Your task to perform on an android device: Is it going to rain tomorrow? Image 0: 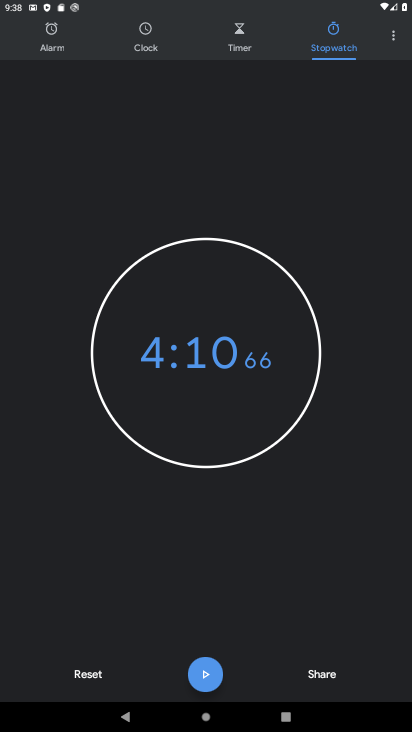
Step 0: press back button
Your task to perform on an android device: Is it going to rain tomorrow? Image 1: 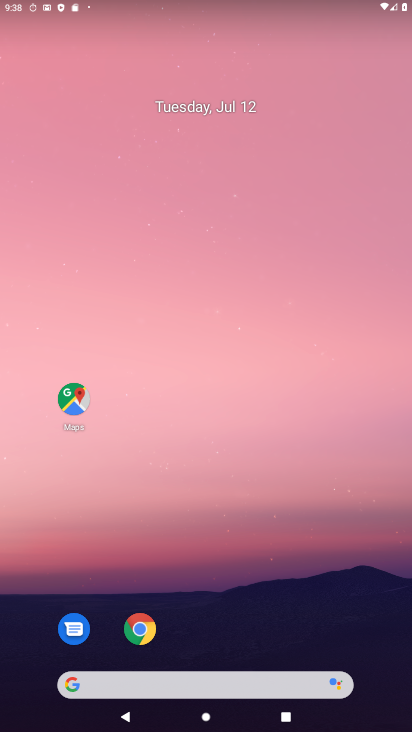
Step 1: drag from (254, 700) to (187, 174)
Your task to perform on an android device: Is it going to rain tomorrow? Image 2: 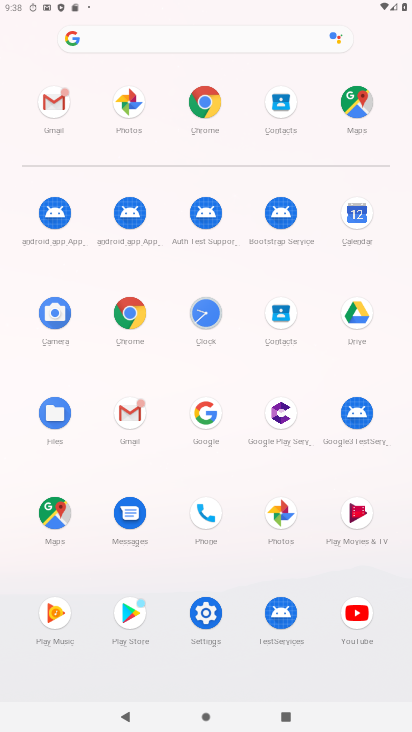
Step 2: click (200, 98)
Your task to perform on an android device: Is it going to rain tomorrow? Image 3: 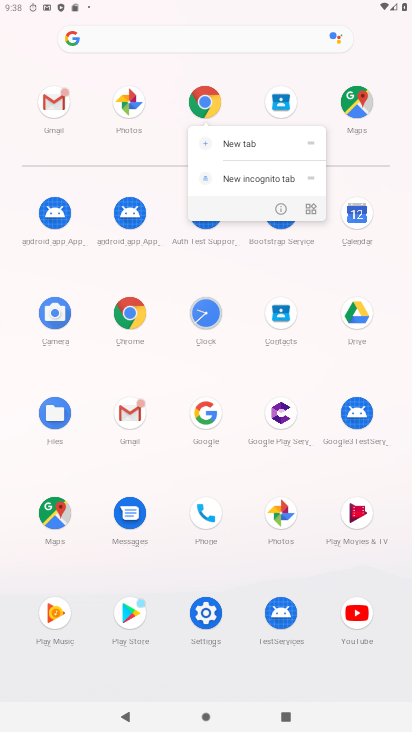
Step 3: click (208, 99)
Your task to perform on an android device: Is it going to rain tomorrow? Image 4: 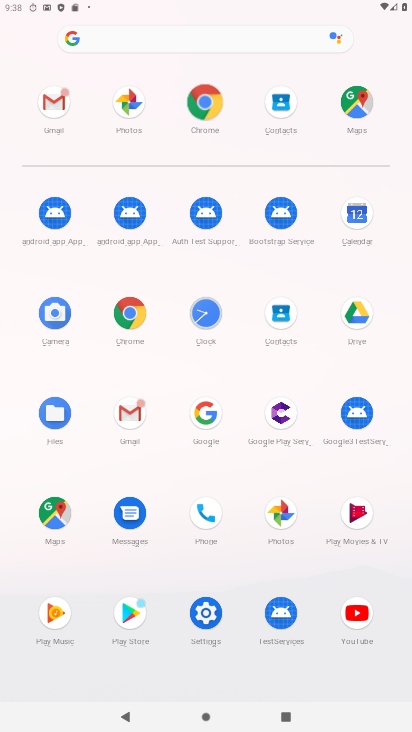
Step 4: click (211, 98)
Your task to perform on an android device: Is it going to rain tomorrow? Image 5: 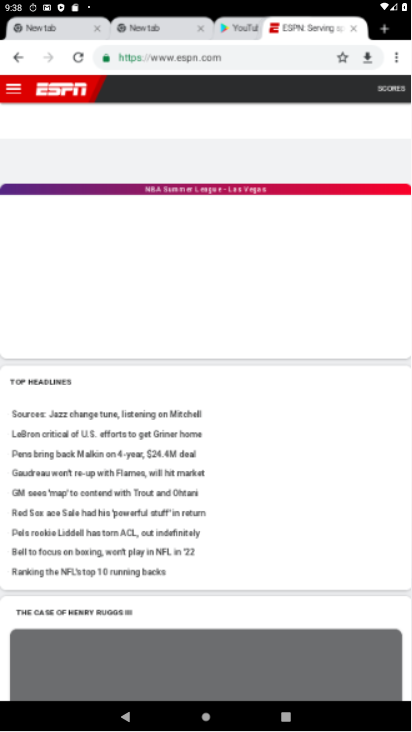
Step 5: click (211, 98)
Your task to perform on an android device: Is it going to rain tomorrow? Image 6: 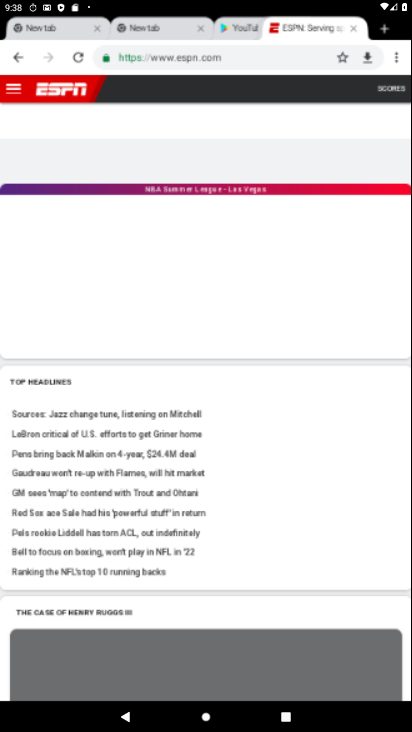
Step 6: click (211, 98)
Your task to perform on an android device: Is it going to rain tomorrow? Image 7: 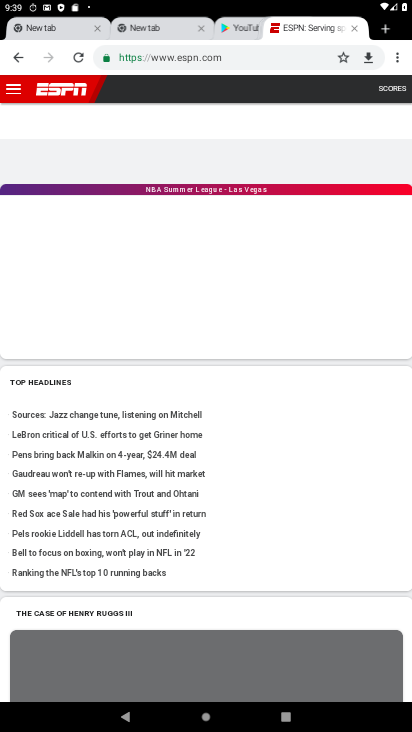
Step 7: click (356, 30)
Your task to perform on an android device: Is it going to rain tomorrow? Image 8: 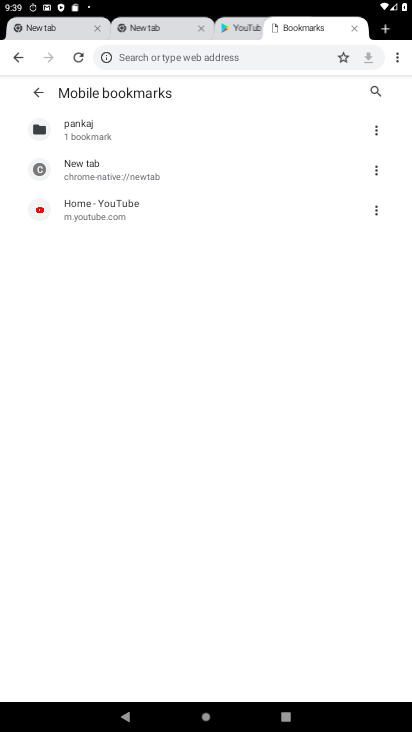
Step 8: click (353, 27)
Your task to perform on an android device: Is it going to rain tomorrow? Image 9: 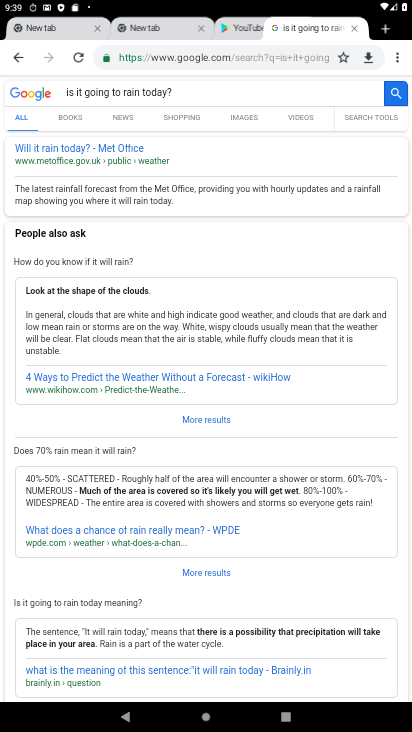
Step 9: click (351, 32)
Your task to perform on an android device: Is it going to rain tomorrow? Image 10: 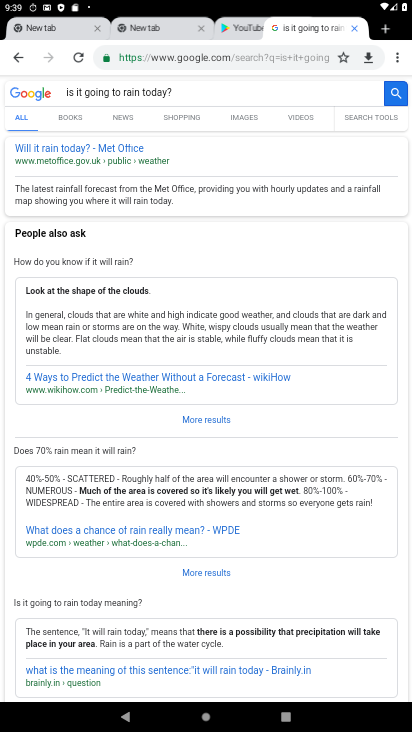
Step 10: click (351, 32)
Your task to perform on an android device: Is it going to rain tomorrow? Image 11: 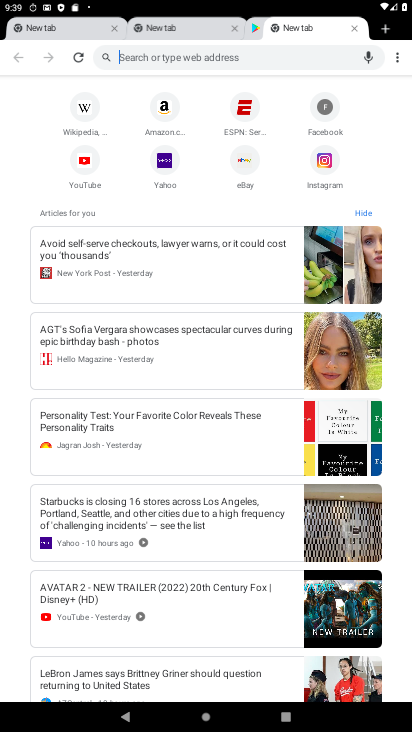
Step 11: type "is it going to rain tomorrow"
Your task to perform on an android device: Is it going to rain tomorrow? Image 12: 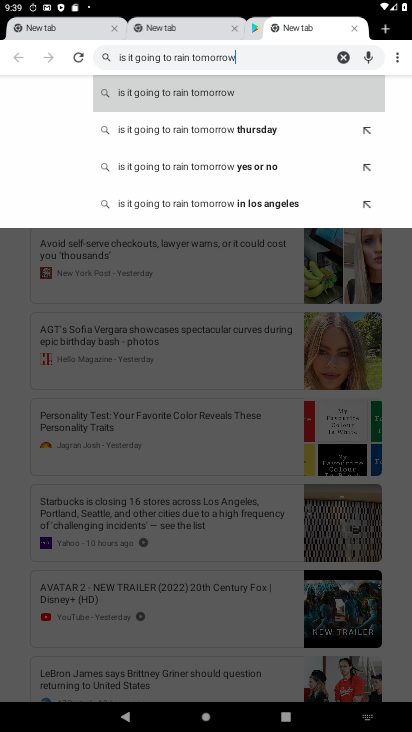
Step 12: click (207, 82)
Your task to perform on an android device: Is it going to rain tomorrow? Image 13: 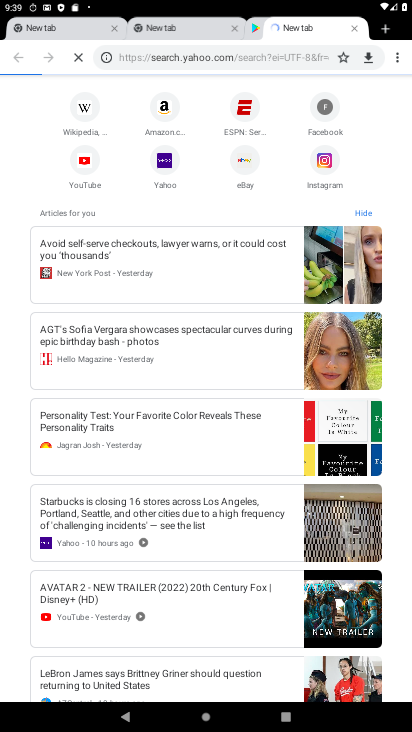
Step 13: click (204, 91)
Your task to perform on an android device: Is it going to rain tomorrow? Image 14: 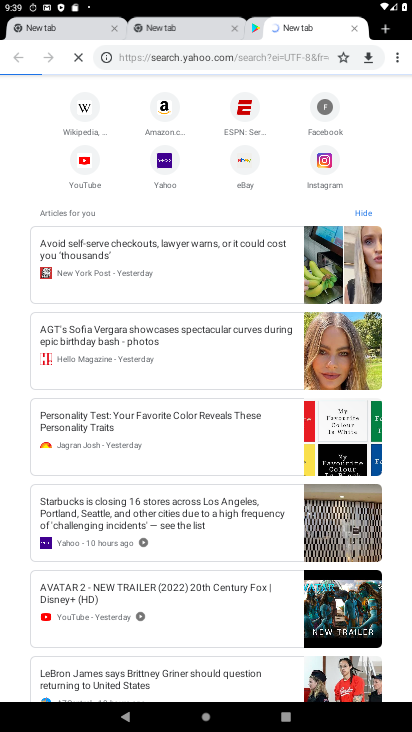
Step 14: click (205, 93)
Your task to perform on an android device: Is it going to rain tomorrow? Image 15: 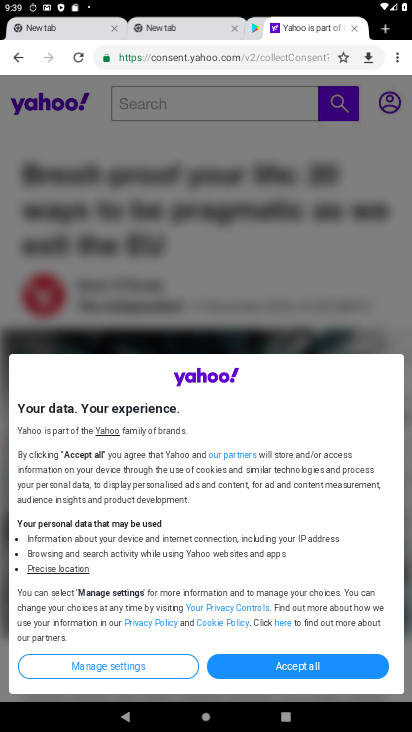
Step 15: task complete